Your task to perform on an android device: turn off data saver in the chrome app Image 0: 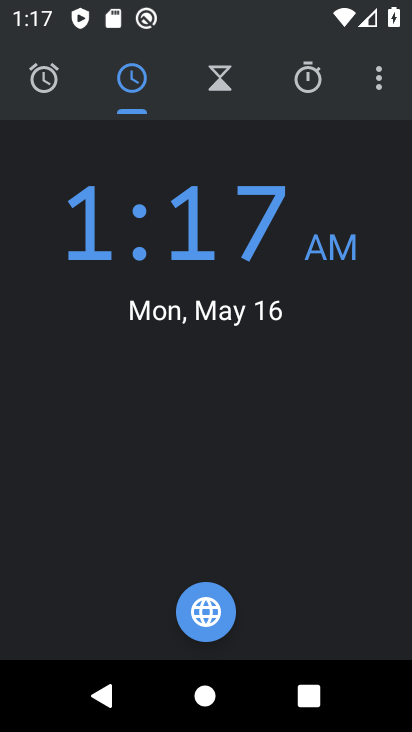
Step 0: press home button
Your task to perform on an android device: turn off data saver in the chrome app Image 1: 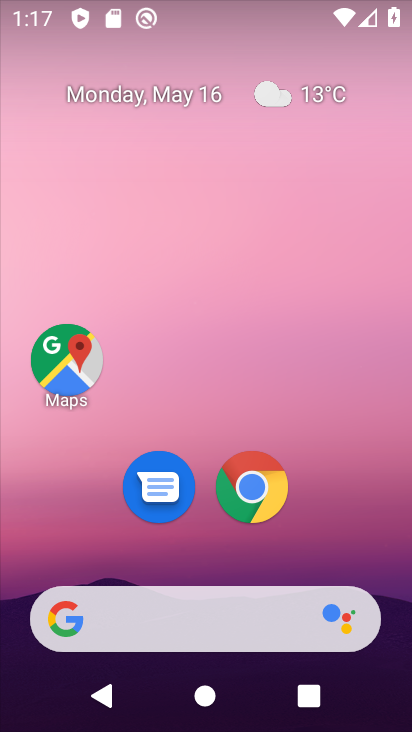
Step 1: drag from (203, 565) to (174, 31)
Your task to perform on an android device: turn off data saver in the chrome app Image 2: 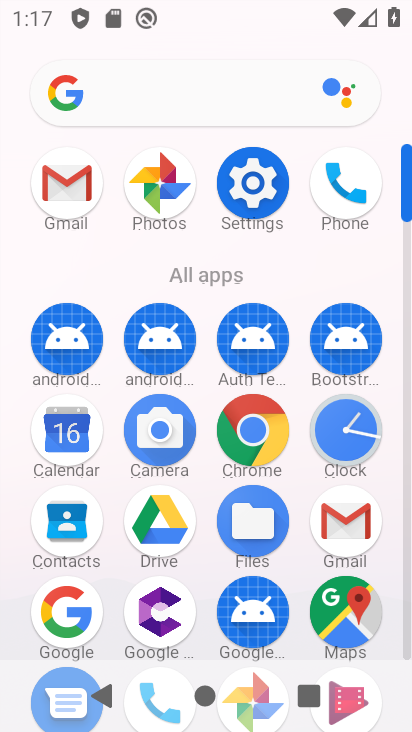
Step 2: click (260, 192)
Your task to perform on an android device: turn off data saver in the chrome app Image 3: 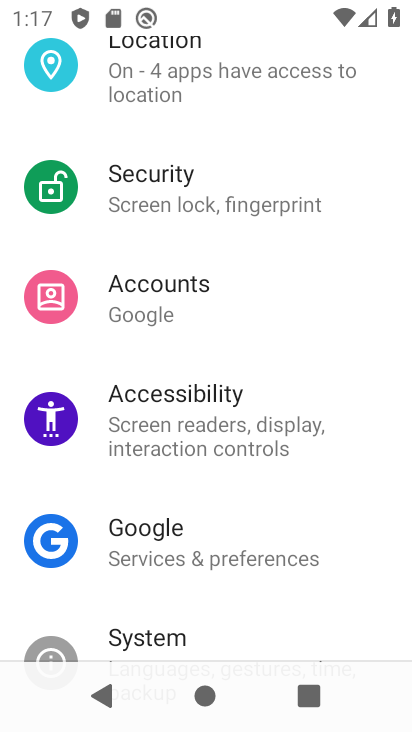
Step 3: drag from (209, 313) to (185, 641)
Your task to perform on an android device: turn off data saver in the chrome app Image 4: 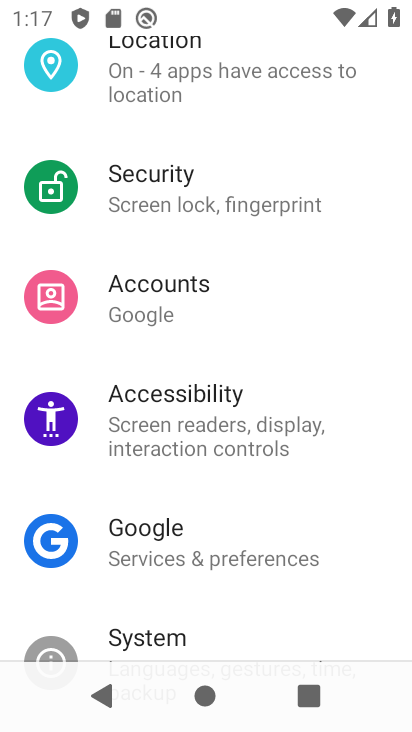
Step 4: click (136, 698)
Your task to perform on an android device: turn off data saver in the chrome app Image 5: 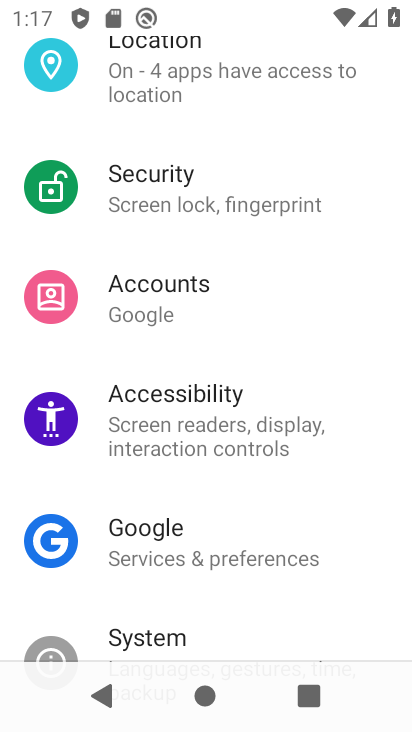
Step 5: drag from (195, 143) to (174, 682)
Your task to perform on an android device: turn off data saver in the chrome app Image 6: 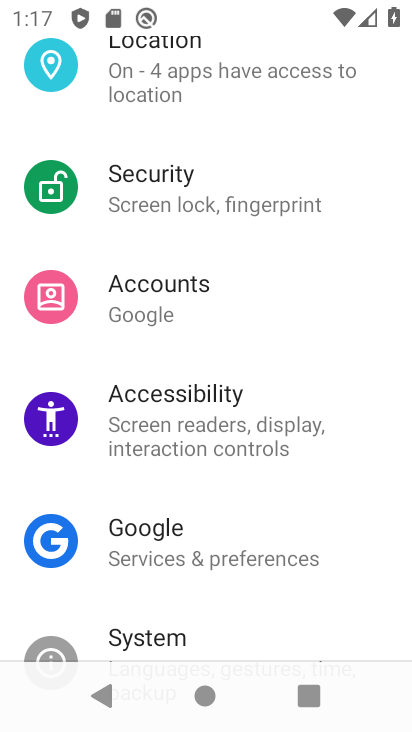
Step 6: drag from (205, 187) to (170, 696)
Your task to perform on an android device: turn off data saver in the chrome app Image 7: 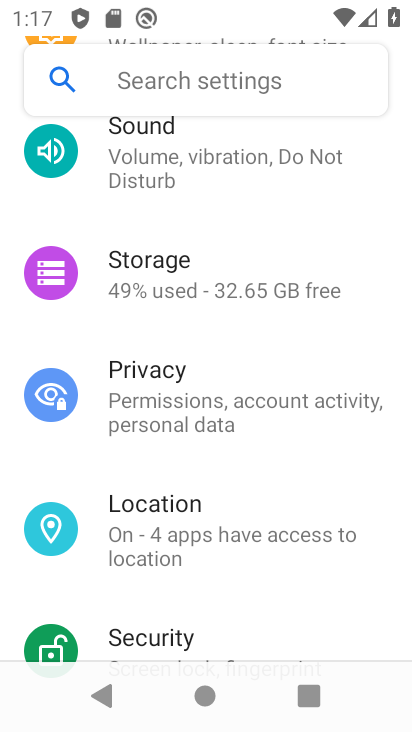
Step 7: drag from (181, 486) to (170, 633)
Your task to perform on an android device: turn off data saver in the chrome app Image 8: 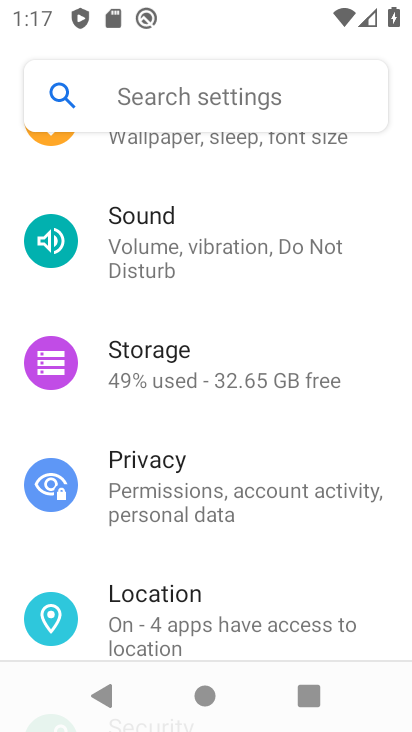
Step 8: drag from (214, 259) to (180, 715)
Your task to perform on an android device: turn off data saver in the chrome app Image 9: 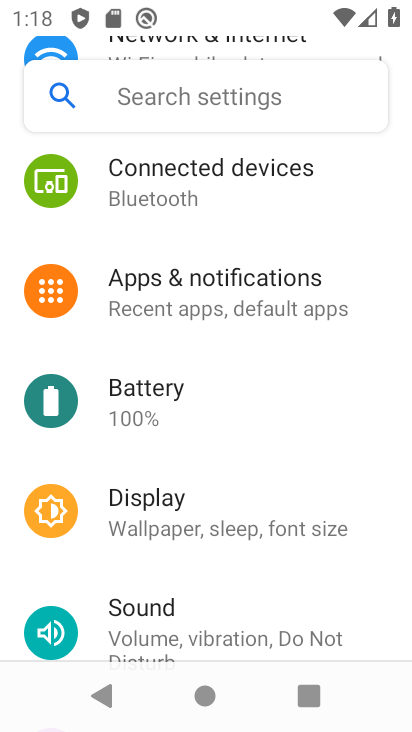
Step 9: drag from (142, 173) to (126, 712)
Your task to perform on an android device: turn off data saver in the chrome app Image 10: 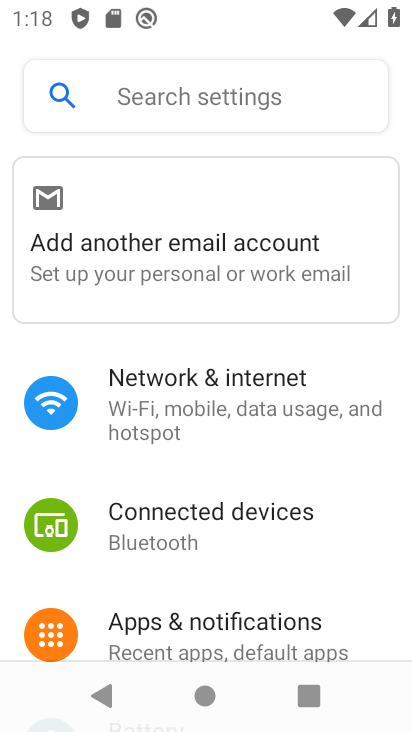
Step 10: click (256, 392)
Your task to perform on an android device: turn off data saver in the chrome app Image 11: 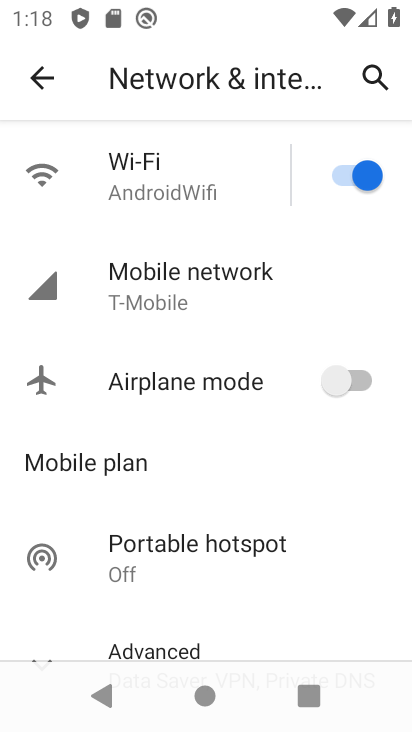
Step 11: click (208, 295)
Your task to perform on an android device: turn off data saver in the chrome app Image 12: 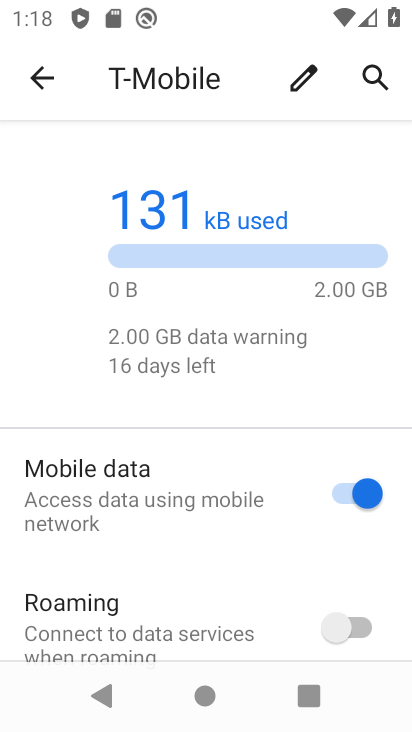
Step 12: task complete